Your task to perform on an android device: turn off smart reply in the gmail app Image 0: 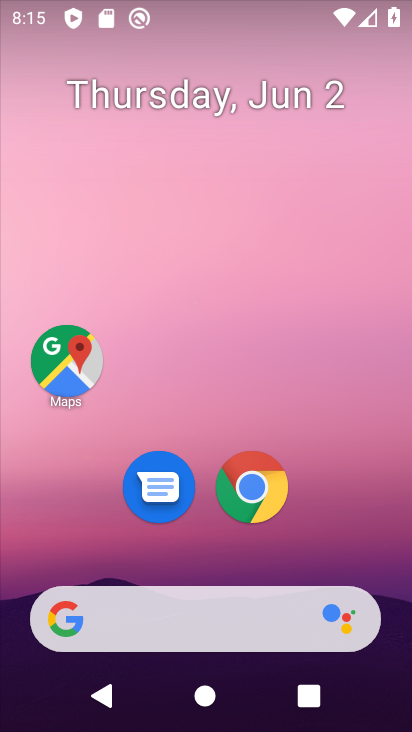
Step 0: drag from (152, 569) to (248, 29)
Your task to perform on an android device: turn off smart reply in the gmail app Image 1: 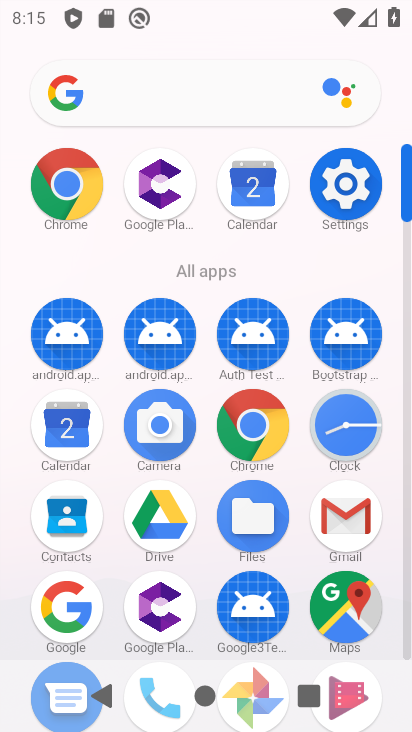
Step 1: click (335, 500)
Your task to perform on an android device: turn off smart reply in the gmail app Image 2: 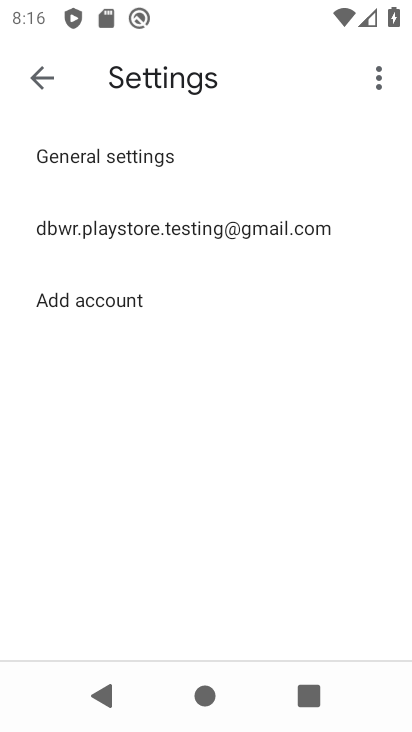
Step 2: click (217, 233)
Your task to perform on an android device: turn off smart reply in the gmail app Image 3: 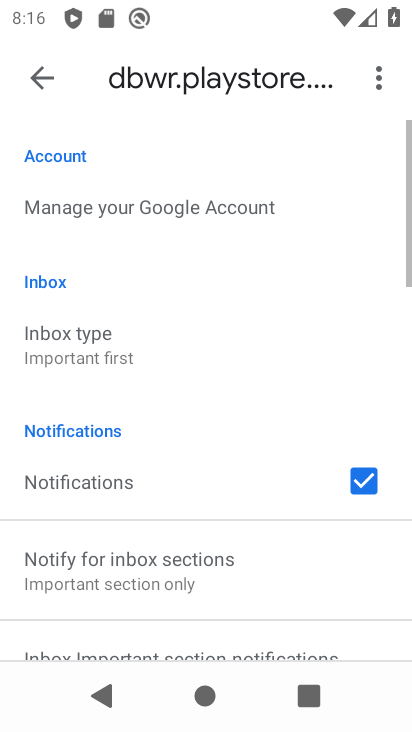
Step 3: drag from (144, 594) to (239, 132)
Your task to perform on an android device: turn off smart reply in the gmail app Image 4: 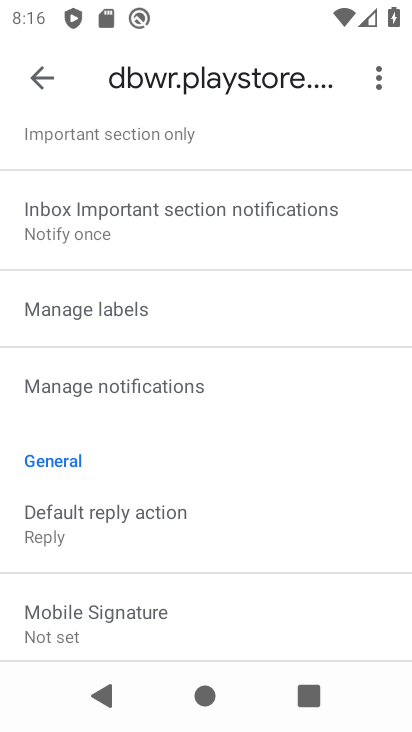
Step 4: drag from (149, 456) to (227, 232)
Your task to perform on an android device: turn off smart reply in the gmail app Image 5: 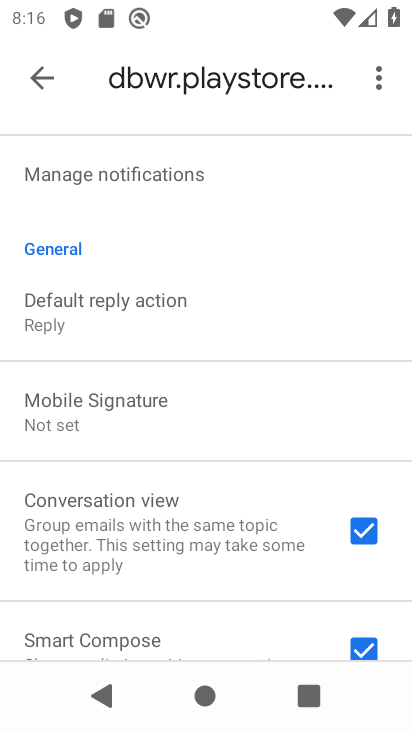
Step 5: drag from (186, 497) to (283, 222)
Your task to perform on an android device: turn off smart reply in the gmail app Image 6: 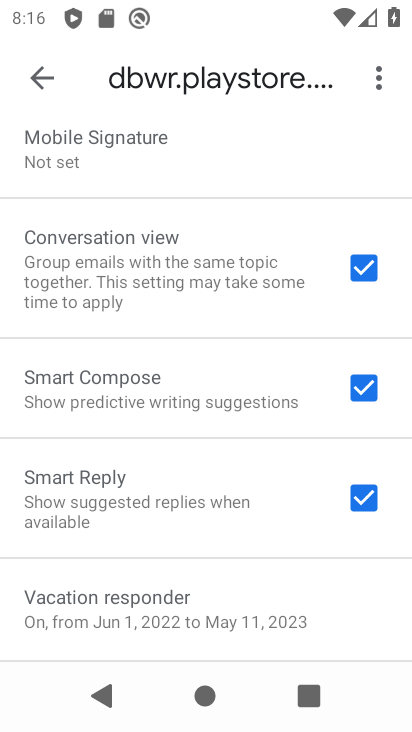
Step 6: click (363, 508)
Your task to perform on an android device: turn off smart reply in the gmail app Image 7: 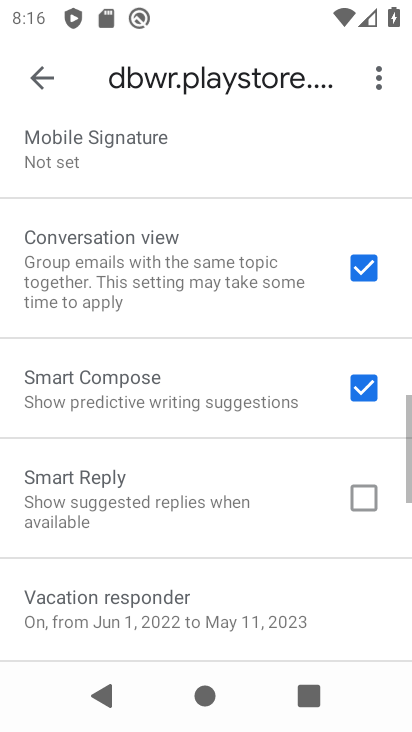
Step 7: task complete